Your task to perform on an android device: Show me the alarms in the clock app Image 0: 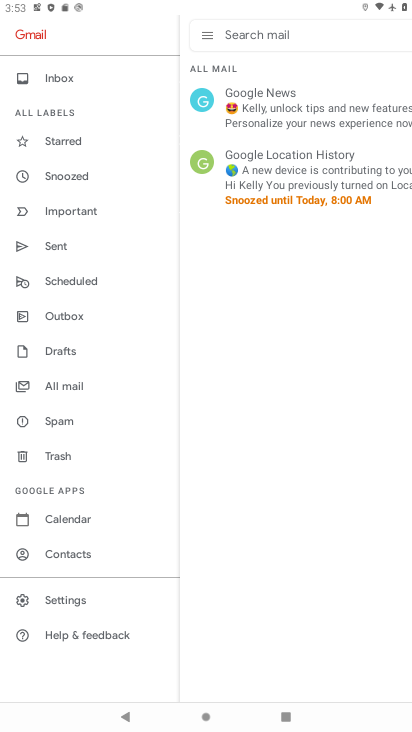
Step 0: press back button
Your task to perform on an android device: Show me the alarms in the clock app Image 1: 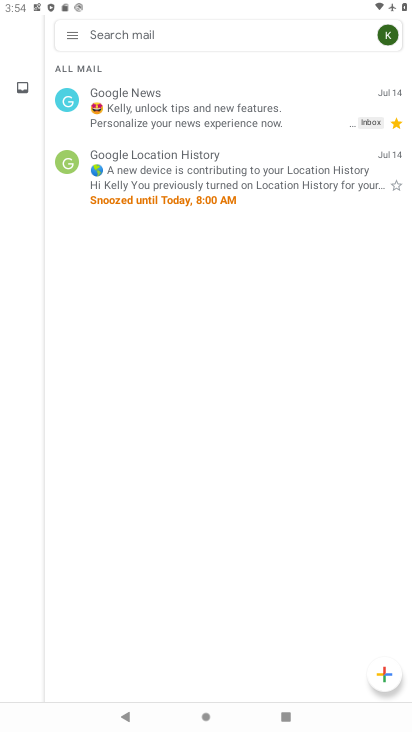
Step 1: press home button
Your task to perform on an android device: Show me the alarms in the clock app Image 2: 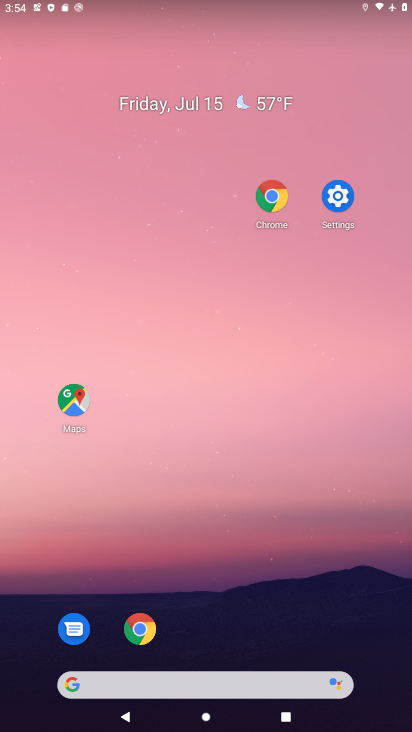
Step 2: drag from (212, 588) to (192, 111)
Your task to perform on an android device: Show me the alarms in the clock app Image 3: 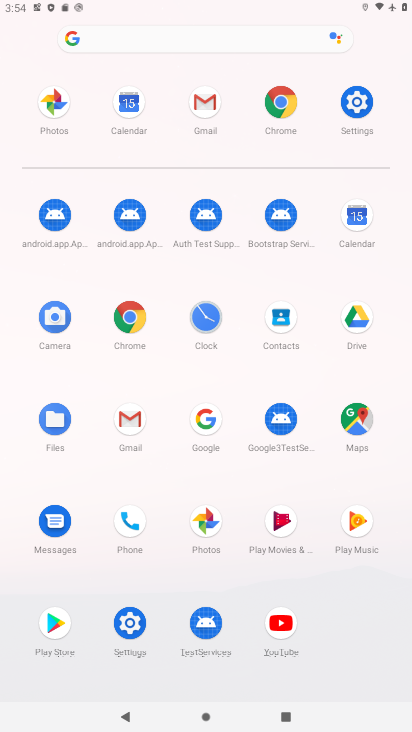
Step 3: click (195, 321)
Your task to perform on an android device: Show me the alarms in the clock app Image 4: 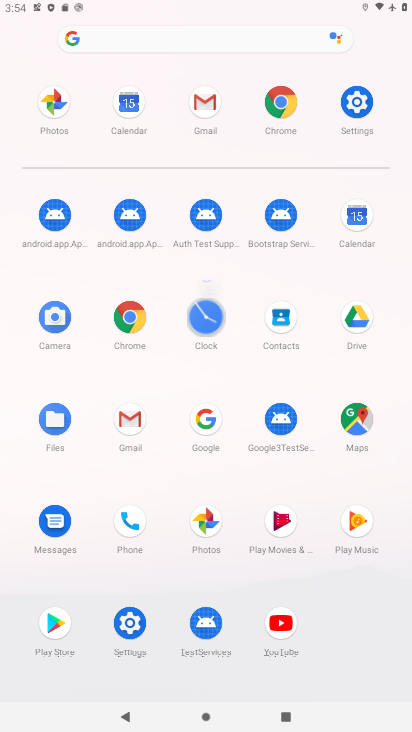
Step 4: click (197, 321)
Your task to perform on an android device: Show me the alarms in the clock app Image 5: 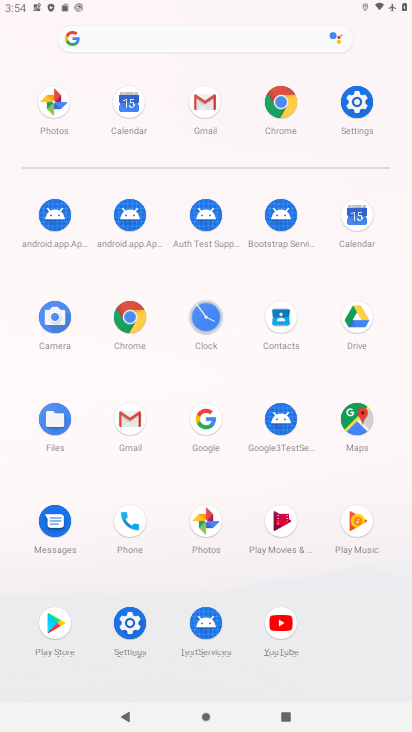
Step 5: click (199, 320)
Your task to perform on an android device: Show me the alarms in the clock app Image 6: 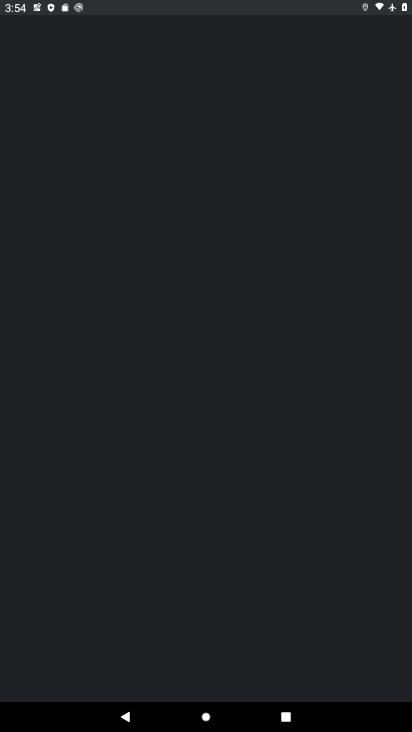
Step 6: click (201, 319)
Your task to perform on an android device: Show me the alarms in the clock app Image 7: 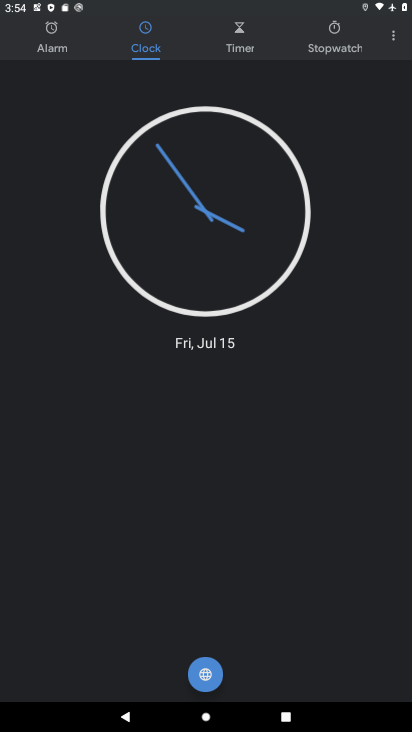
Step 7: click (201, 319)
Your task to perform on an android device: Show me the alarms in the clock app Image 8: 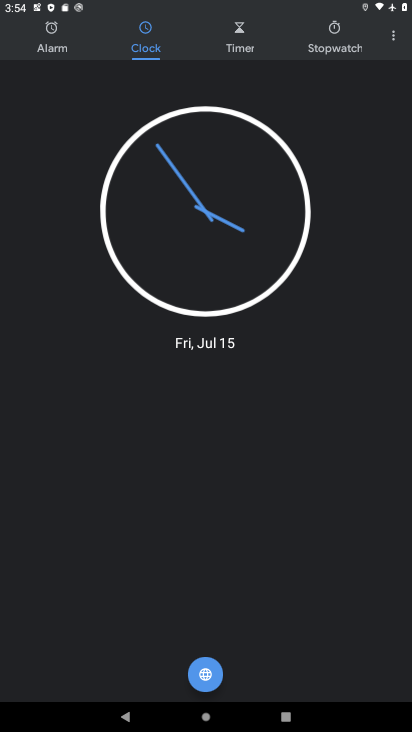
Step 8: click (45, 43)
Your task to perform on an android device: Show me the alarms in the clock app Image 9: 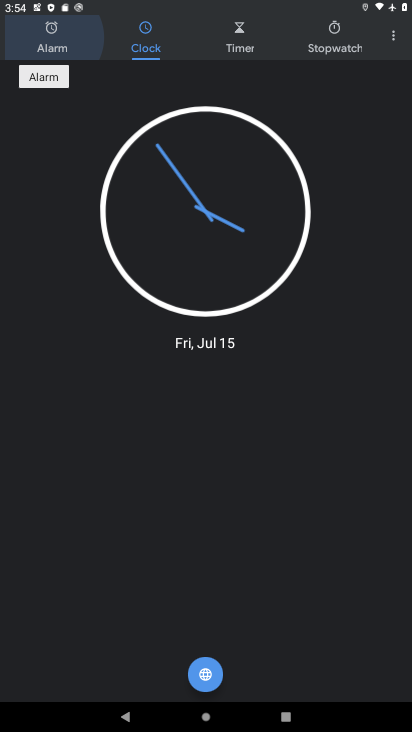
Step 9: click (50, 50)
Your task to perform on an android device: Show me the alarms in the clock app Image 10: 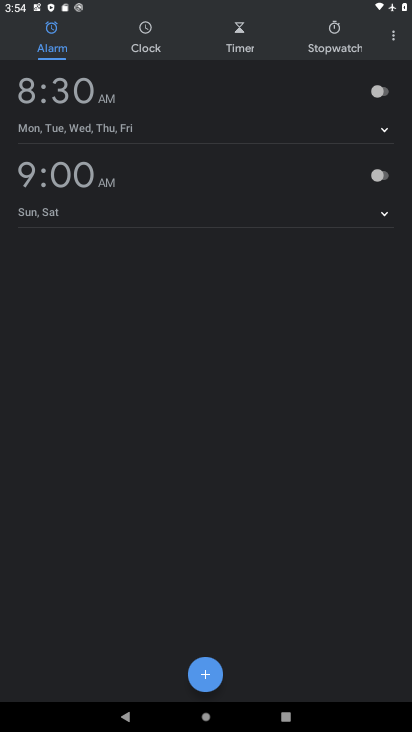
Step 10: click (382, 89)
Your task to perform on an android device: Show me the alarms in the clock app Image 11: 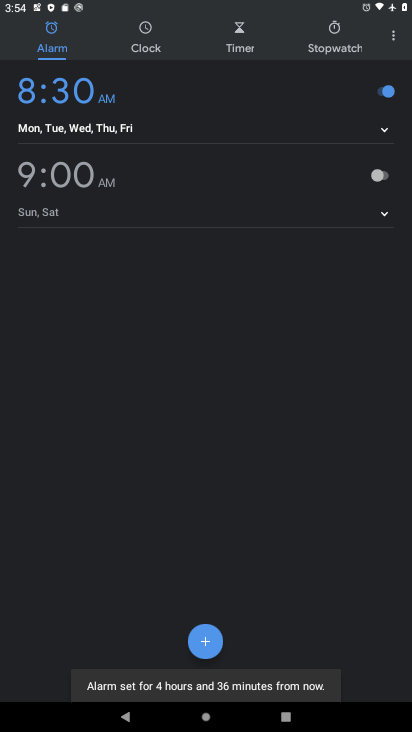
Step 11: task complete